Your task to perform on an android device: Open Youtube and go to "Your channel" Image 0: 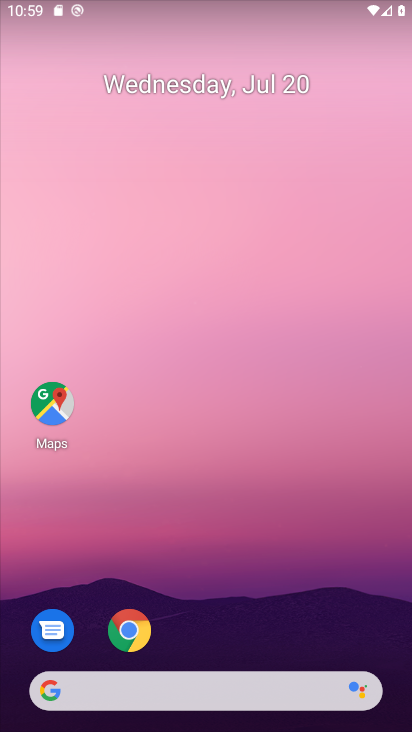
Step 0: drag from (184, 571) to (302, 190)
Your task to perform on an android device: Open Youtube and go to "Your channel" Image 1: 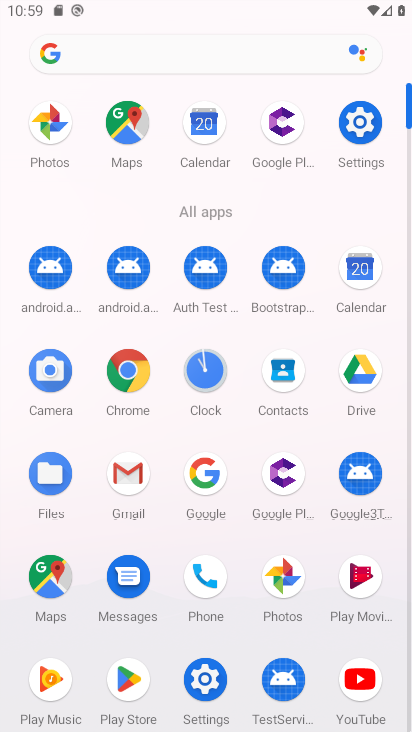
Step 1: click (352, 687)
Your task to perform on an android device: Open Youtube and go to "Your channel" Image 2: 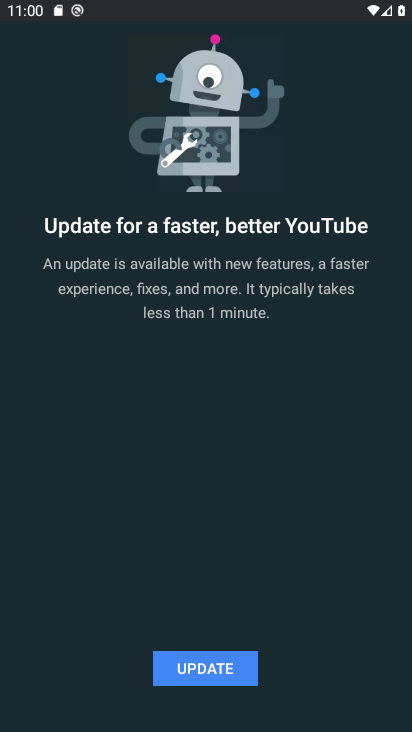
Step 2: task complete